Your task to perform on an android device: Go to Yahoo.com Image 0: 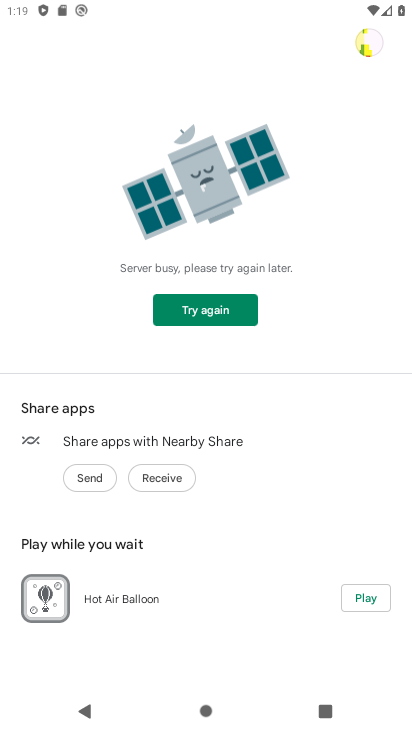
Step 0: press home button
Your task to perform on an android device: Go to Yahoo.com Image 1: 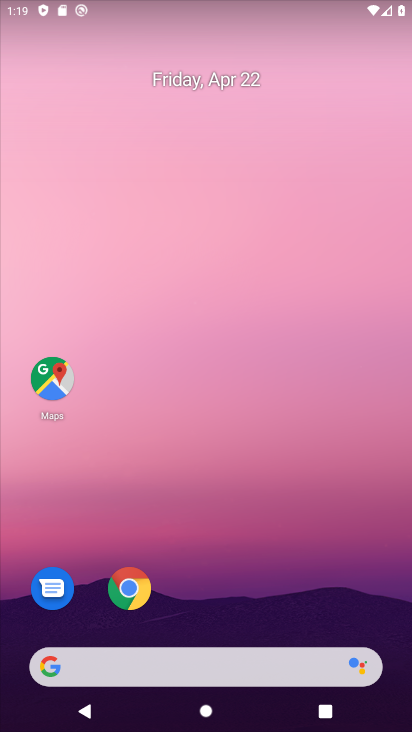
Step 1: drag from (190, 653) to (269, 169)
Your task to perform on an android device: Go to Yahoo.com Image 2: 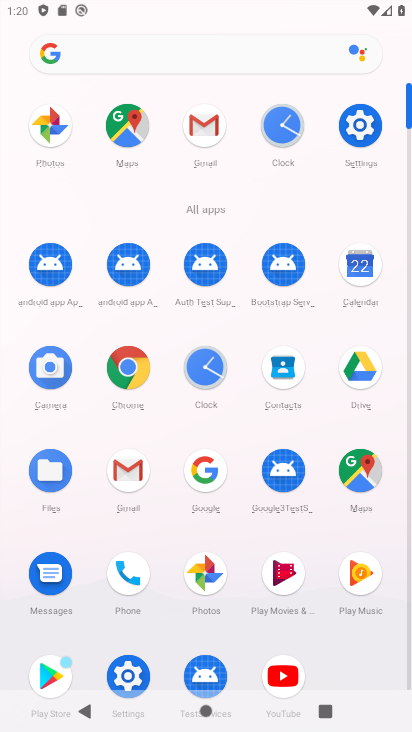
Step 2: click (141, 389)
Your task to perform on an android device: Go to Yahoo.com Image 3: 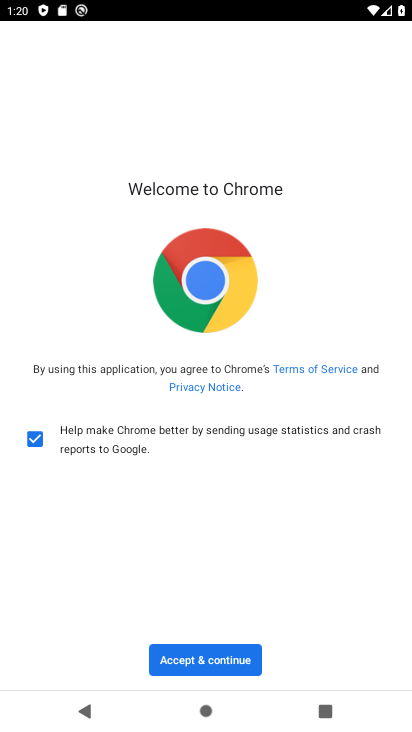
Step 3: click (205, 667)
Your task to perform on an android device: Go to Yahoo.com Image 4: 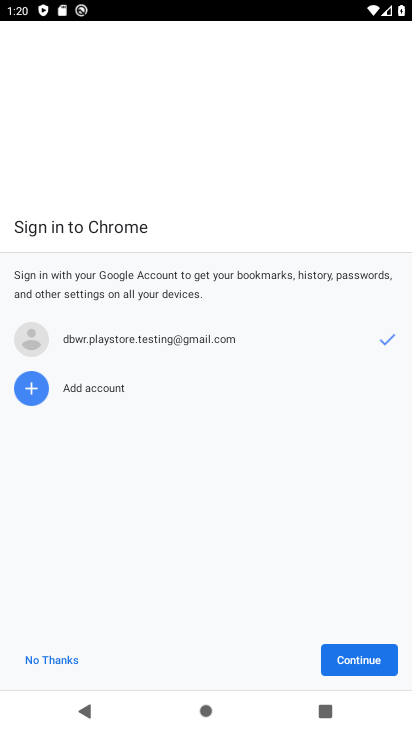
Step 4: click (363, 657)
Your task to perform on an android device: Go to Yahoo.com Image 5: 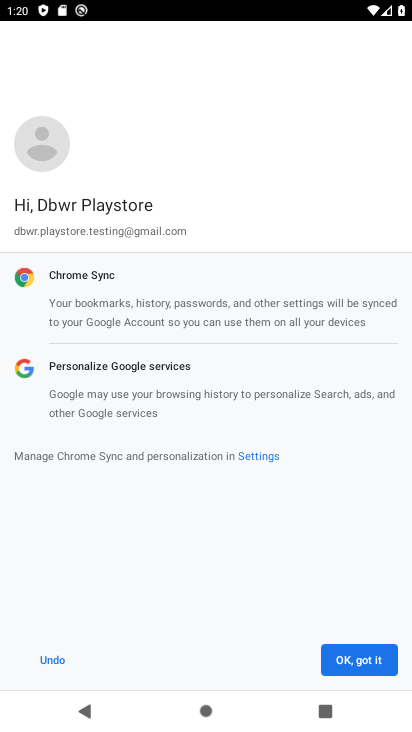
Step 5: click (376, 665)
Your task to perform on an android device: Go to Yahoo.com Image 6: 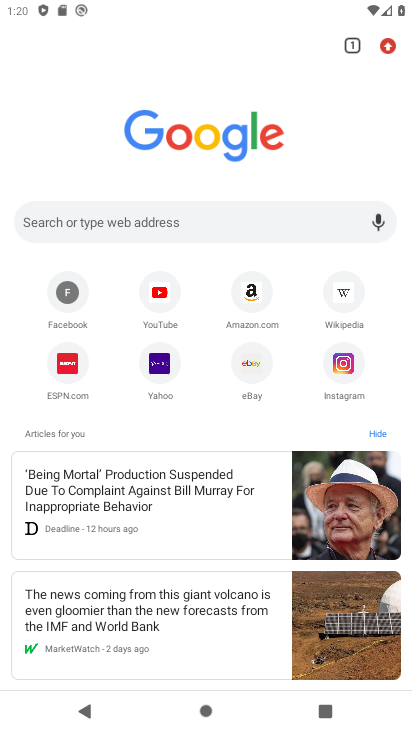
Step 6: click (153, 375)
Your task to perform on an android device: Go to Yahoo.com Image 7: 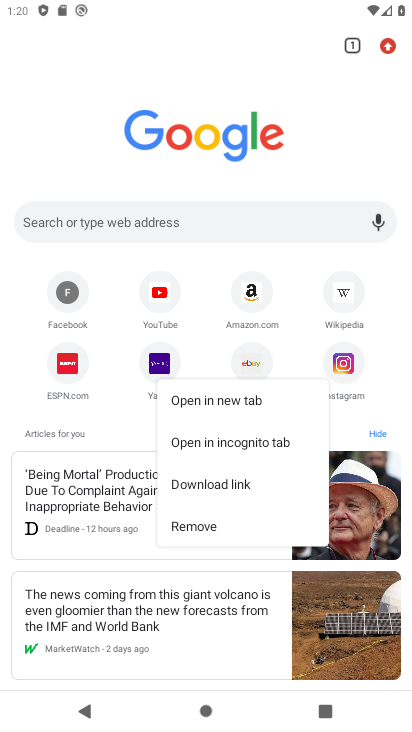
Step 7: click (152, 370)
Your task to perform on an android device: Go to Yahoo.com Image 8: 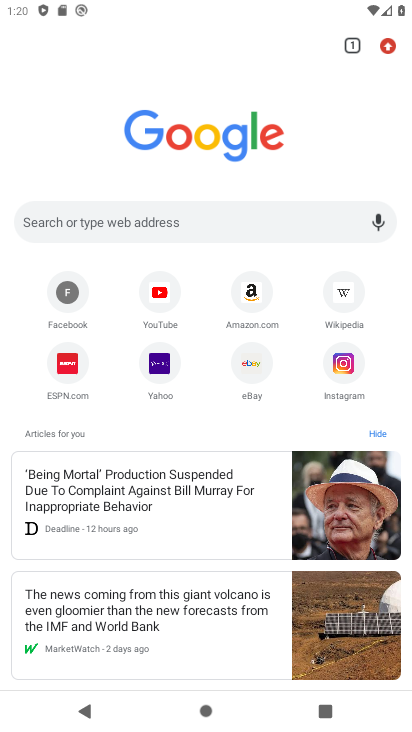
Step 8: click (152, 370)
Your task to perform on an android device: Go to Yahoo.com Image 9: 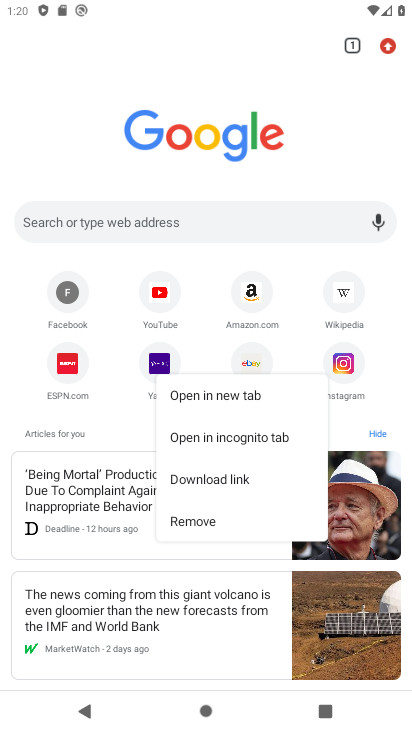
Step 9: click (152, 370)
Your task to perform on an android device: Go to Yahoo.com Image 10: 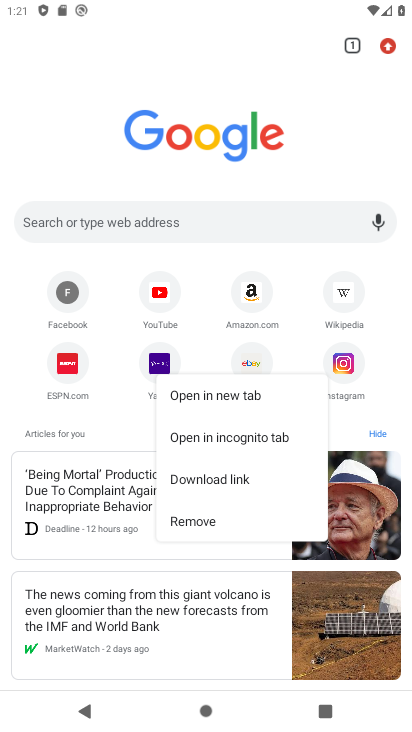
Step 10: click (148, 369)
Your task to perform on an android device: Go to Yahoo.com Image 11: 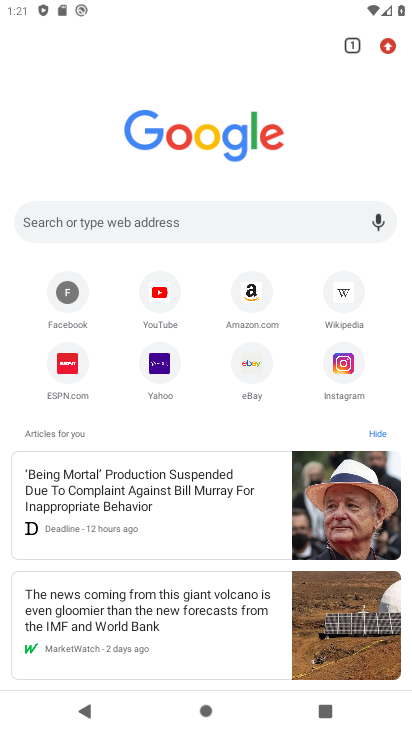
Step 11: click (141, 388)
Your task to perform on an android device: Go to Yahoo.com Image 12: 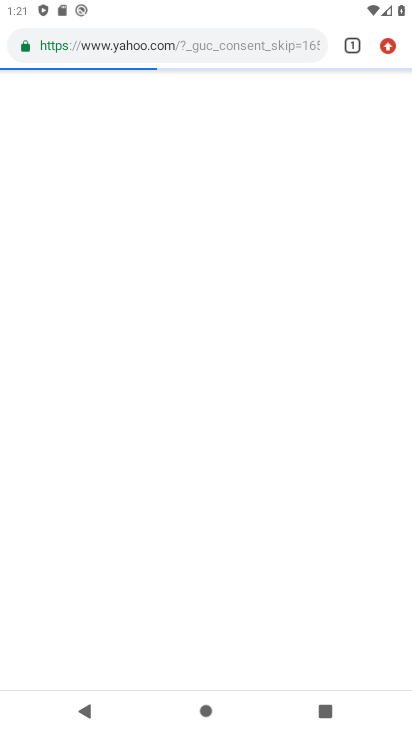
Step 12: click (163, 378)
Your task to perform on an android device: Go to Yahoo.com Image 13: 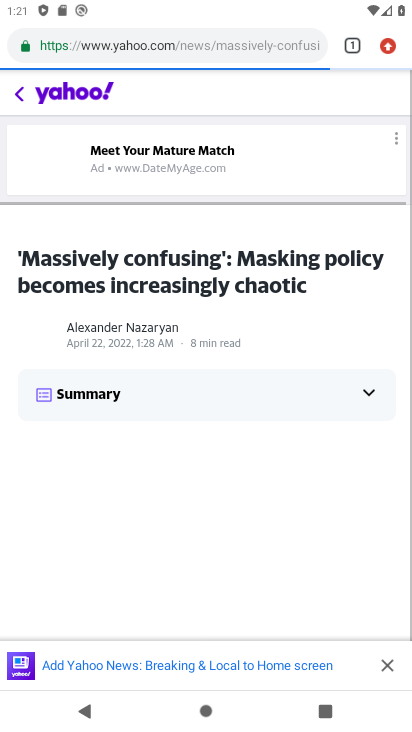
Step 13: task complete